Your task to perform on an android device: change your default location settings in chrome Image 0: 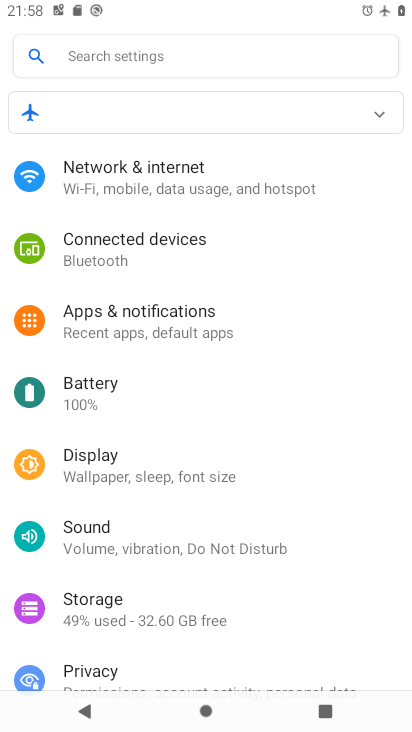
Step 0: press home button
Your task to perform on an android device: change your default location settings in chrome Image 1: 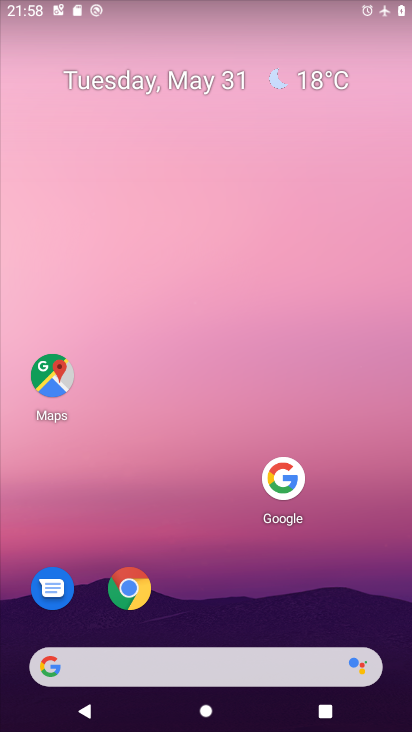
Step 1: click (135, 589)
Your task to perform on an android device: change your default location settings in chrome Image 2: 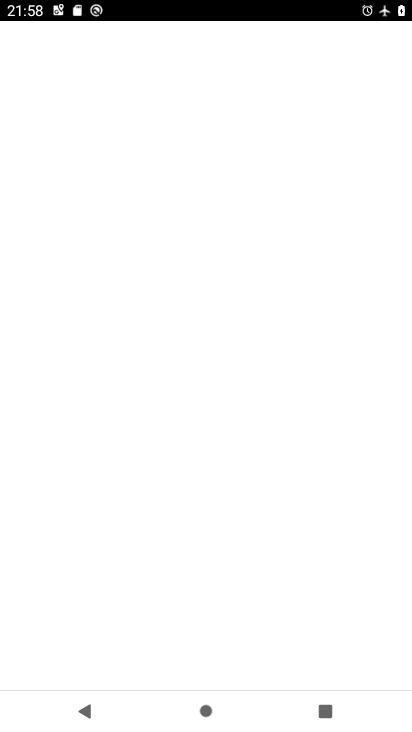
Step 2: click (131, 593)
Your task to perform on an android device: change your default location settings in chrome Image 3: 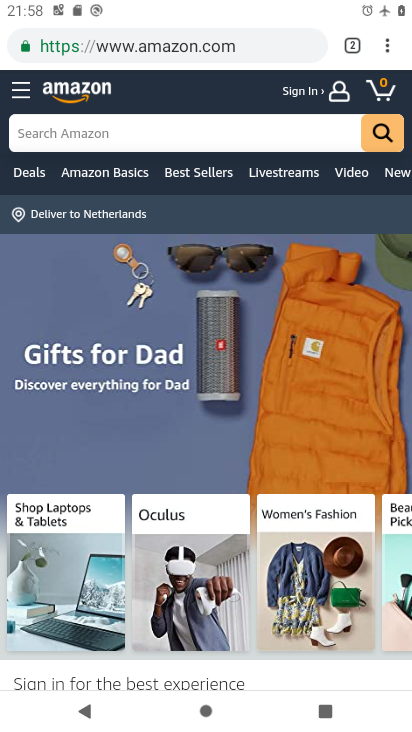
Step 3: drag from (384, 47) to (254, 510)
Your task to perform on an android device: change your default location settings in chrome Image 4: 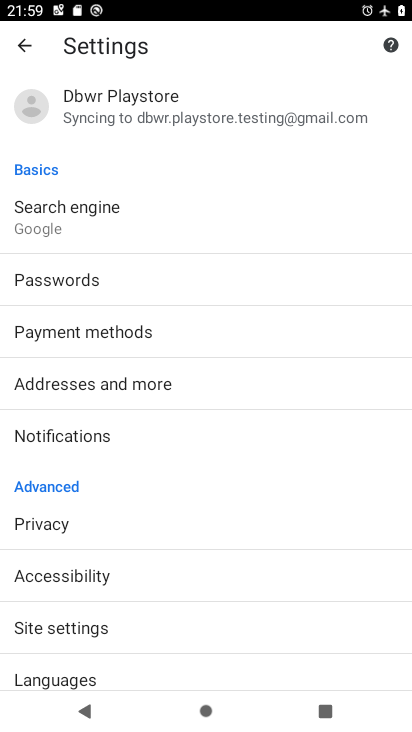
Step 4: click (88, 636)
Your task to perform on an android device: change your default location settings in chrome Image 5: 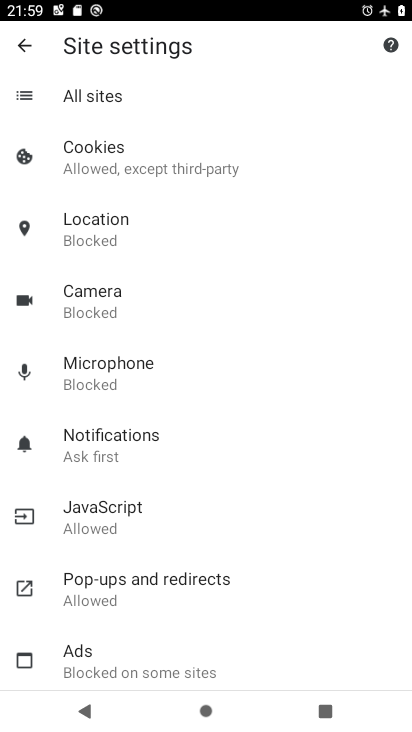
Step 5: click (103, 233)
Your task to perform on an android device: change your default location settings in chrome Image 6: 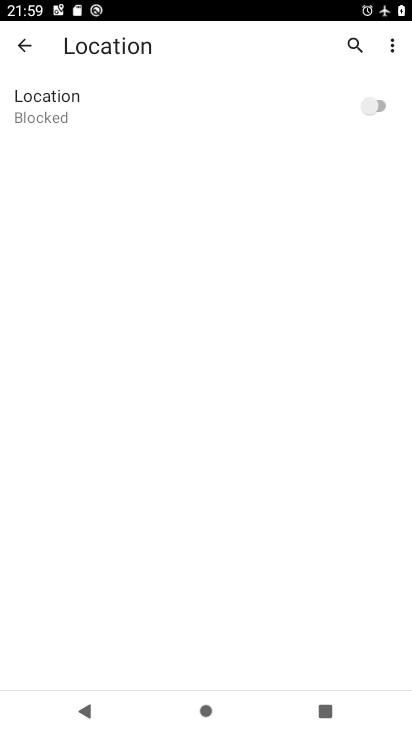
Step 6: click (378, 102)
Your task to perform on an android device: change your default location settings in chrome Image 7: 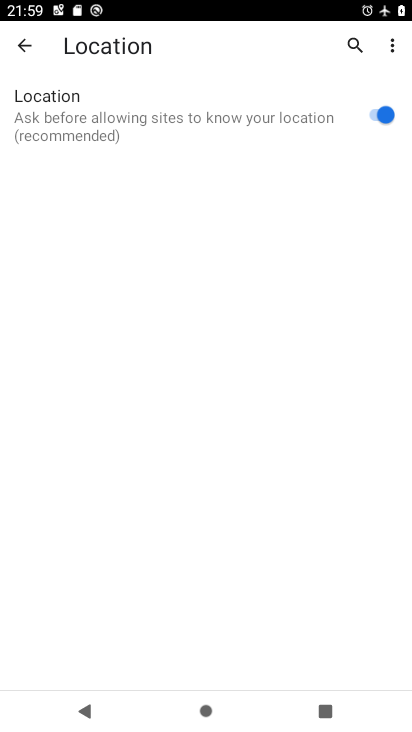
Step 7: task complete